Your task to perform on an android device: change the clock display to digital Image 0: 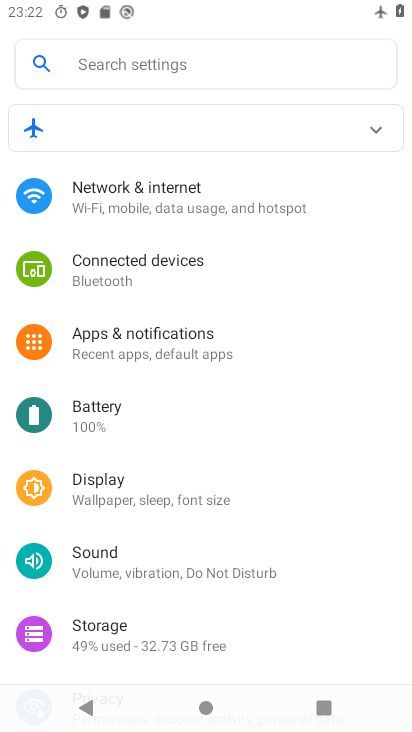
Step 0: press home button
Your task to perform on an android device: change the clock display to digital Image 1: 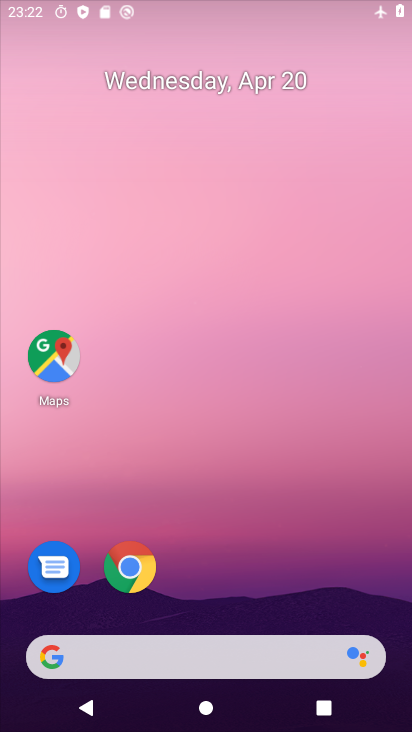
Step 1: drag from (206, 529) to (217, 168)
Your task to perform on an android device: change the clock display to digital Image 2: 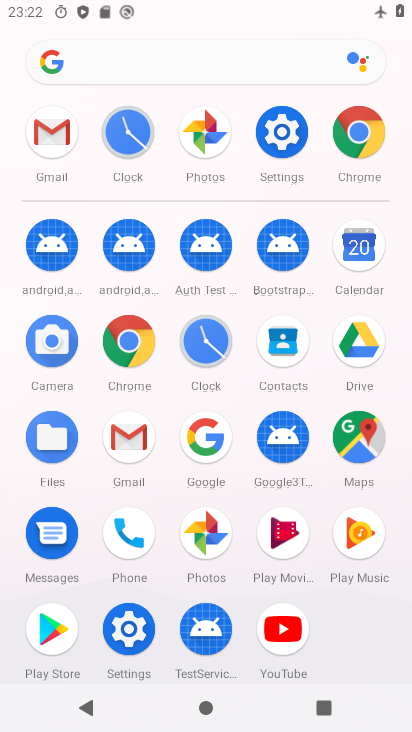
Step 2: click (202, 340)
Your task to perform on an android device: change the clock display to digital Image 3: 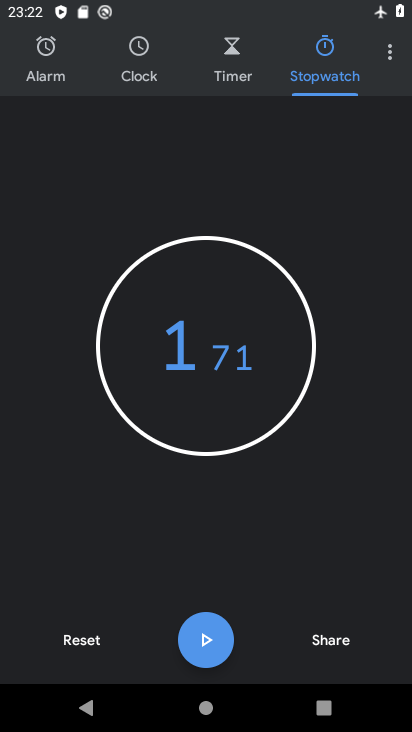
Step 3: click (397, 48)
Your task to perform on an android device: change the clock display to digital Image 4: 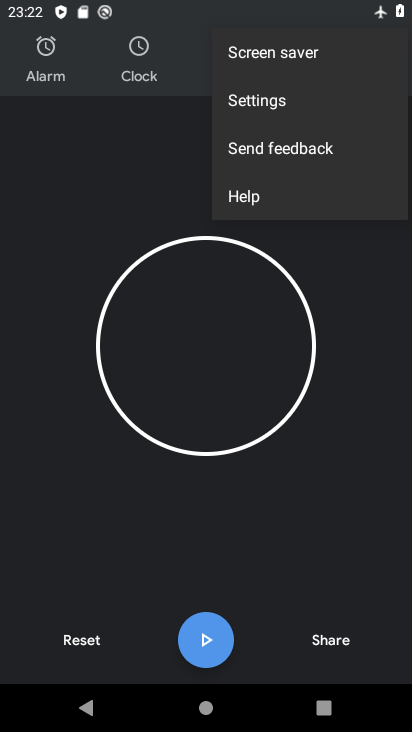
Step 4: click (294, 108)
Your task to perform on an android device: change the clock display to digital Image 5: 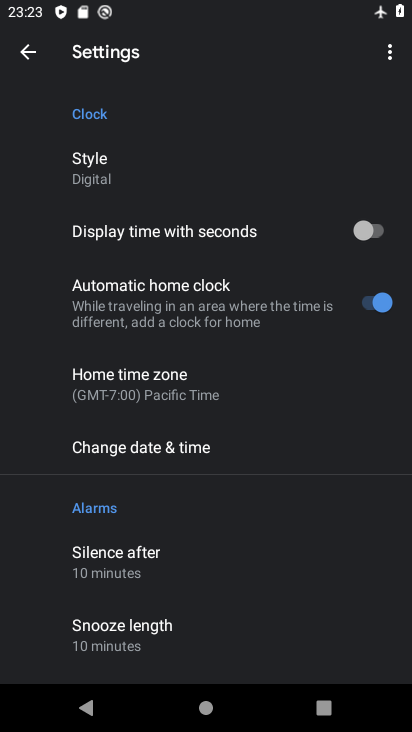
Step 5: task complete